Your task to perform on an android device: Open ESPN.com Image 0: 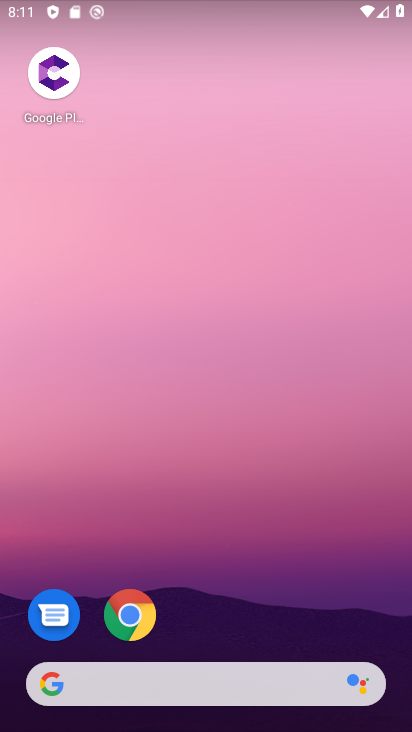
Step 0: drag from (334, 576) to (69, 12)
Your task to perform on an android device: Open ESPN.com Image 1: 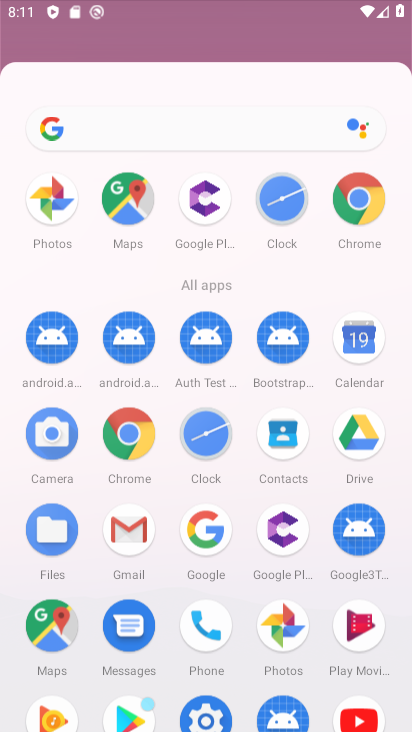
Step 1: drag from (11, 432) to (8, 245)
Your task to perform on an android device: Open ESPN.com Image 2: 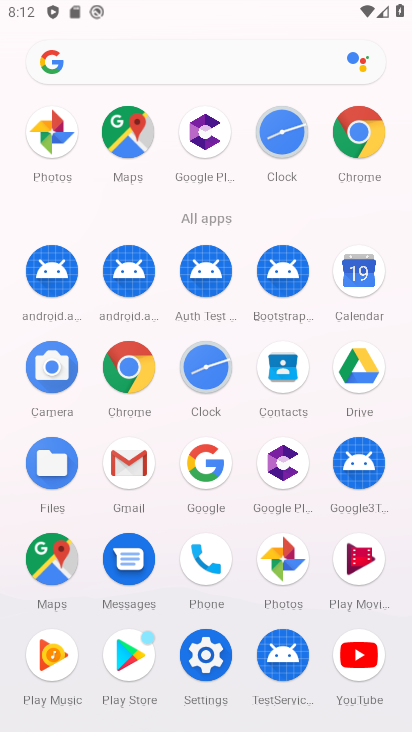
Step 2: click (129, 362)
Your task to perform on an android device: Open ESPN.com Image 3: 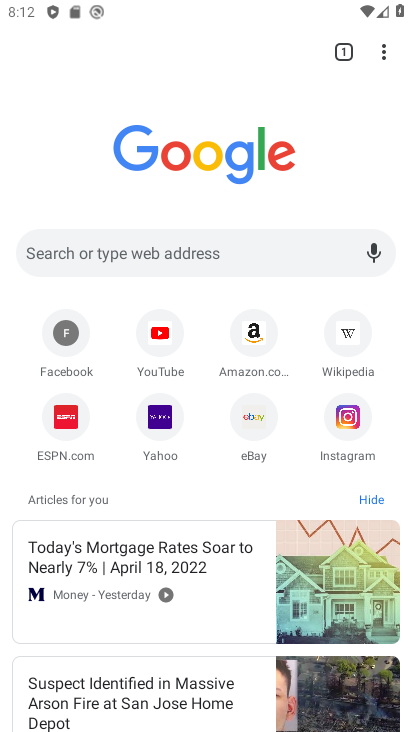
Step 3: click (230, 251)
Your task to perform on an android device: Open ESPN.com Image 4: 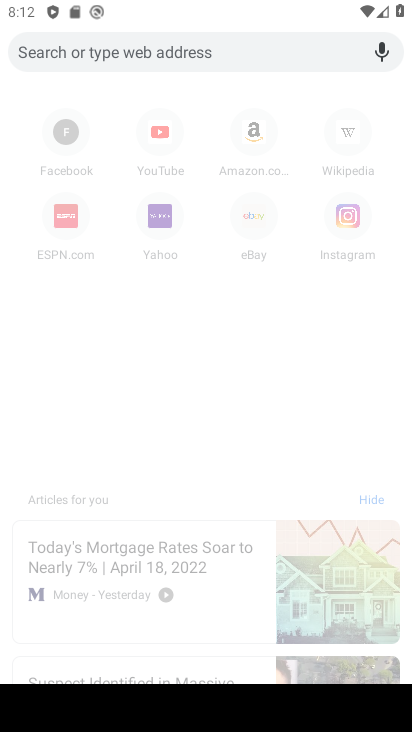
Step 4: type "ESPN.com"
Your task to perform on an android device: Open ESPN.com Image 5: 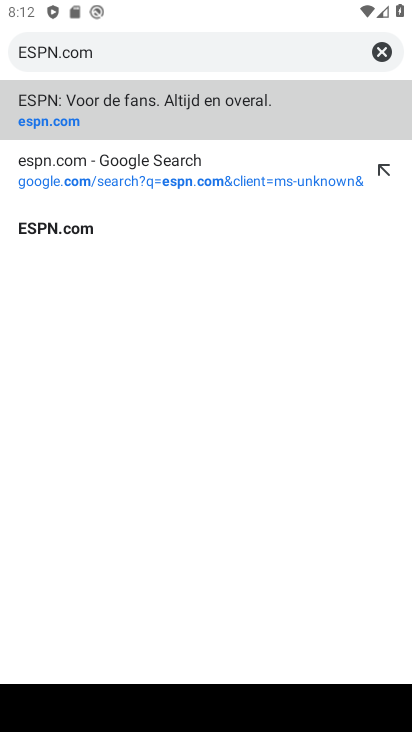
Step 5: click (117, 104)
Your task to perform on an android device: Open ESPN.com Image 6: 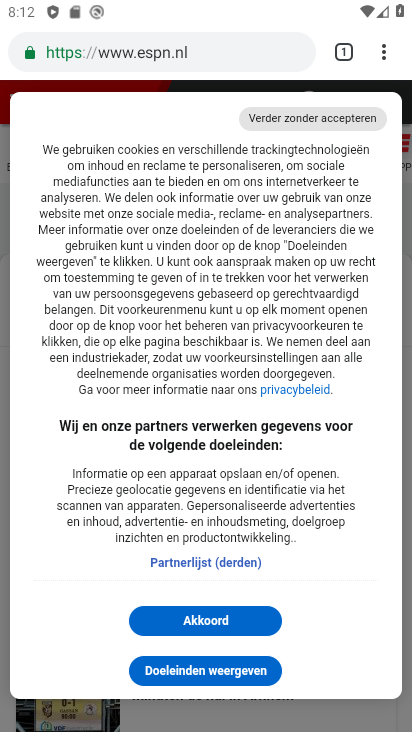
Step 6: task complete